Your task to perform on an android device: refresh tabs in the chrome app Image 0: 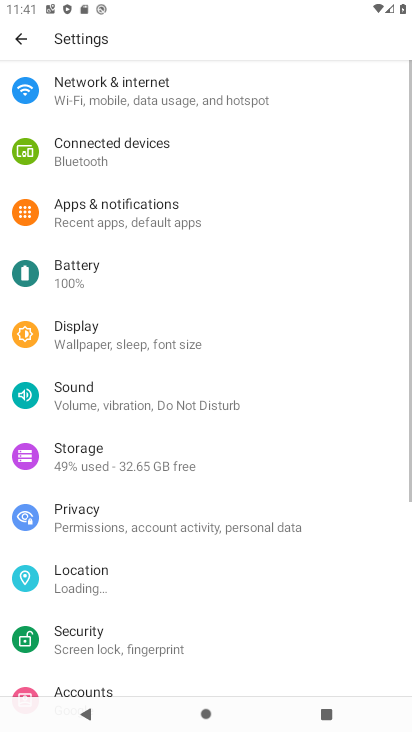
Step 0: press home button
Your task to perform on an android device: refresh tabs in the chrome app Image 1: 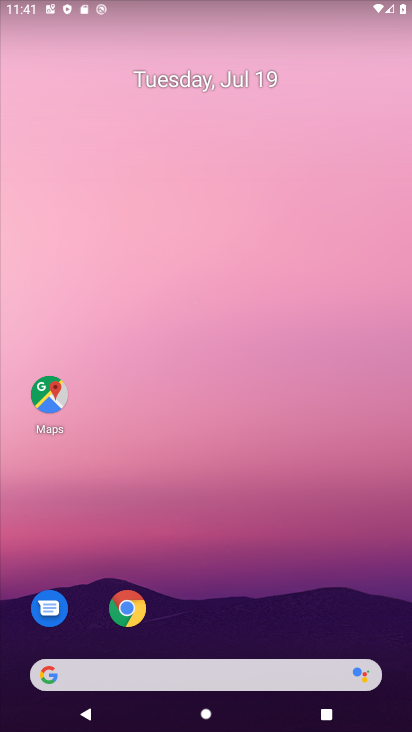
Step 1: click (127, 612)
Your task to perform on an android device: refresh tabs in the chrome app Image 2: 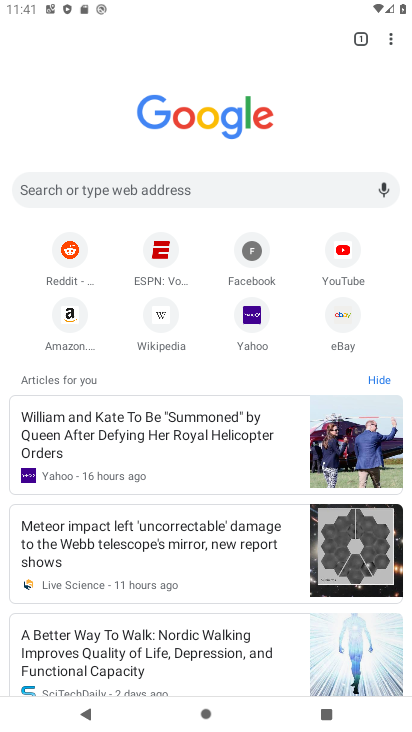
Step 2: click (390, 40)
Your task to perform on an android device: refresh tabs in the chrome app Image 3: 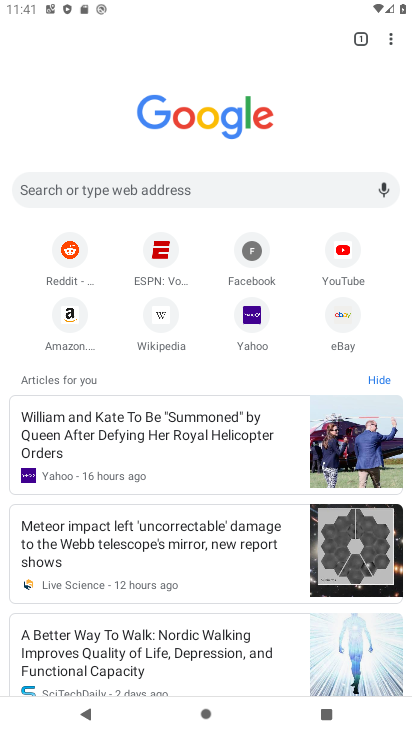
Step 3: click (388, 32)
Your task to perform on an android device: refresh tabs in the chrome app Image 4: 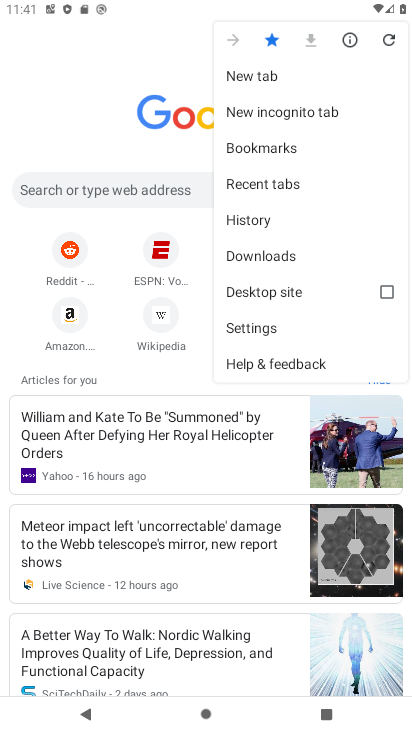
Step 4: click (390, 48)
Your task to perform on an android device: refresh tabs in the chrome app Image 5: 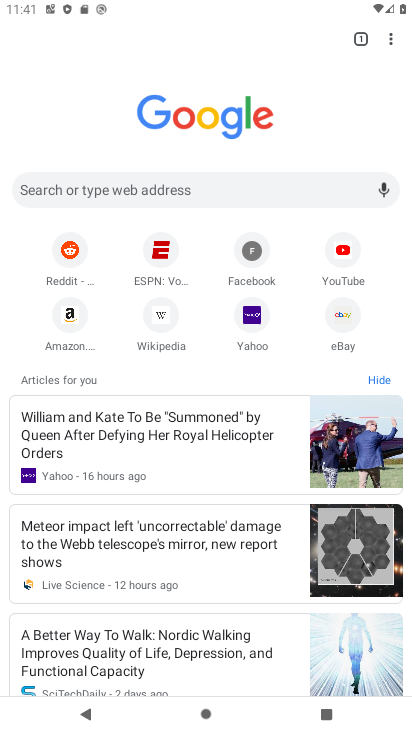
Step 5: task complete